Your task to perform on an android device: toggle location history Image 0: 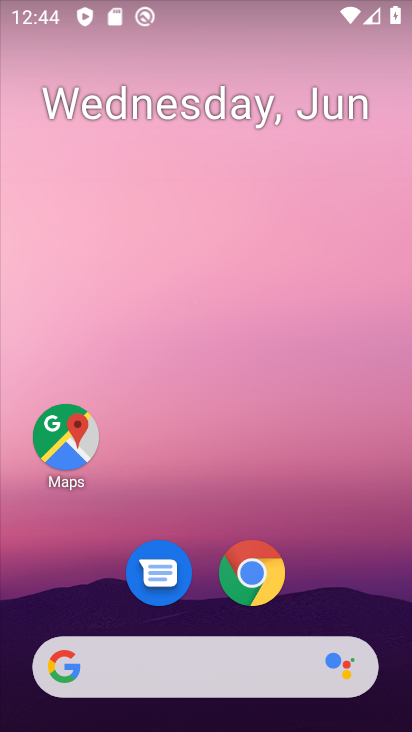
Step 0: drag from (325, 575) to (321, 228)
Your task to perform on an android device: toggle location history Image 1: 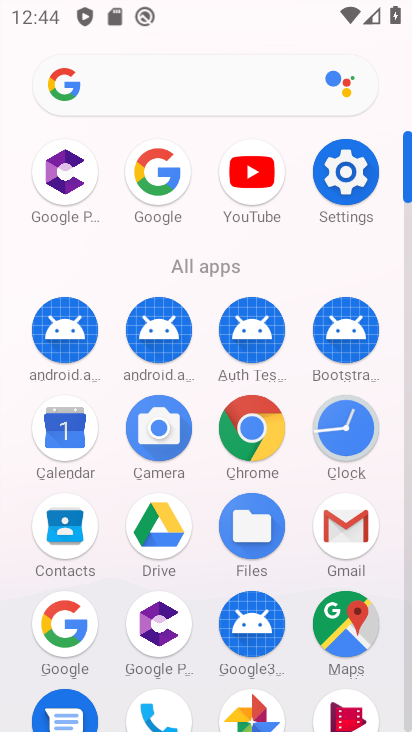
Step 1: click (332, 172)
Your task to perform on an android device: toggle location history Image 2: 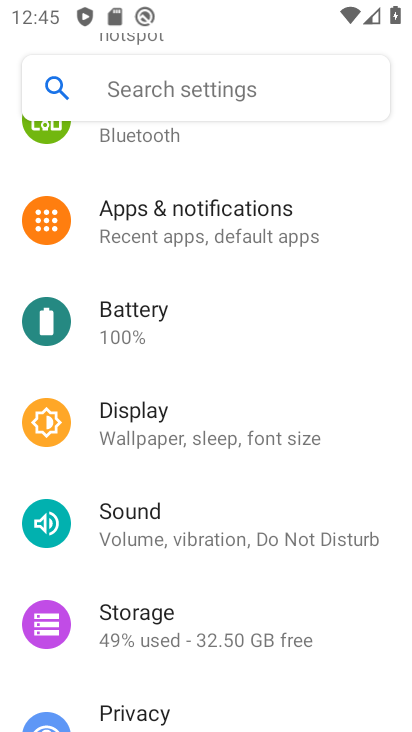
Step 2: drag from (235, 647) to (258, 361)
Your task to perform on an android device: toggle location history Image 3: 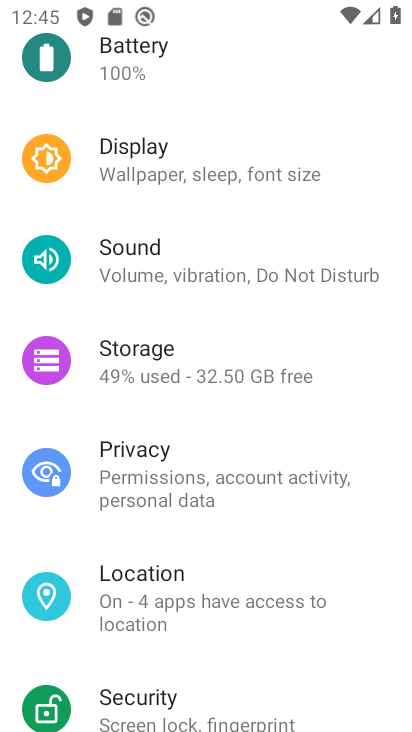
Step 3: drag from (205, 673) to (228, 378)
Your task to perform on an android device: toggle location history Image 4: 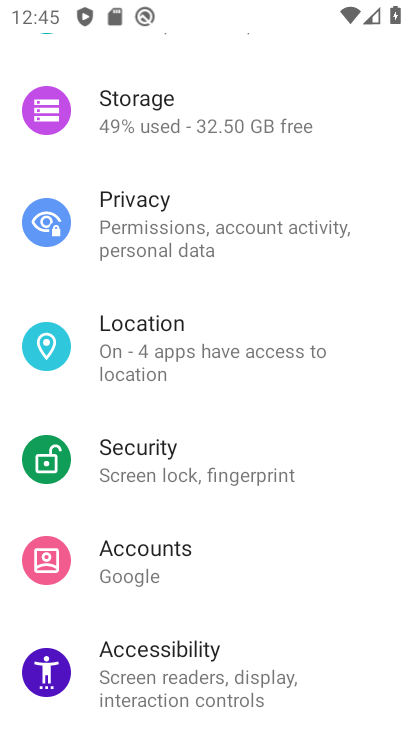
Step 4: drag from (178, 614) to (210, 466)
Your task to perform on an android device: toggle location history Image 5: 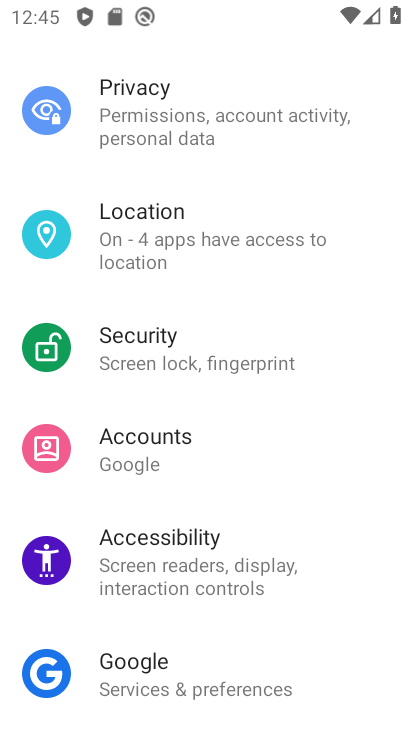
Step 5: drag from (210, 593) to (229, 461)
Your task to perform on an android device: toggle location history Image 6: 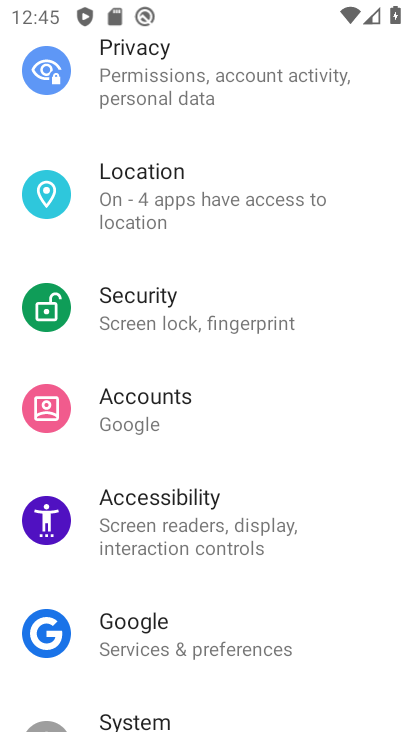
Step 6: click (211, 226)
Your task to perform on an android device: toggle location history Image 7: 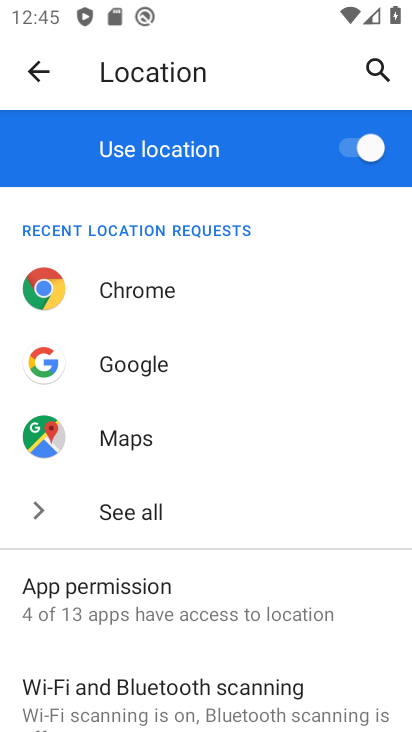
Step 7: drag from (246, 634) to (267, 397)
Your task to perform on an android device: toggle location history Image 8: 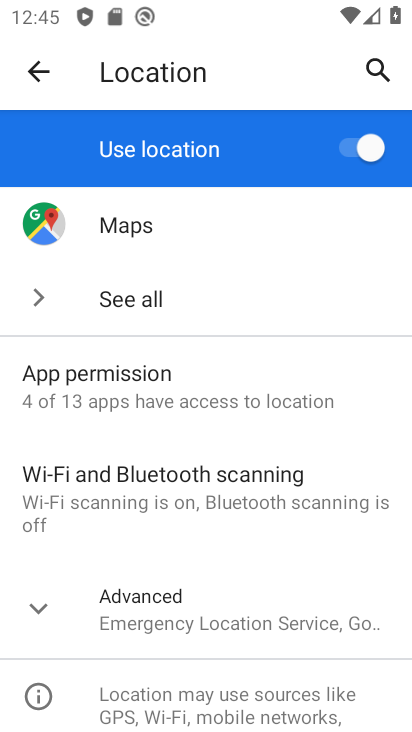
Step 8: click (230, 602)
Your task to perform on an android device: toggle location history Image 9: 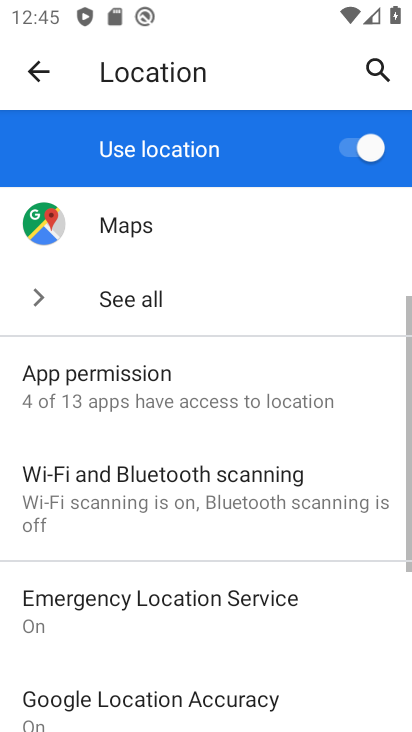
Step 9: drag from (238, 663) to (277, 415)
Your task to perform on an android device: toggle location history Image 10: 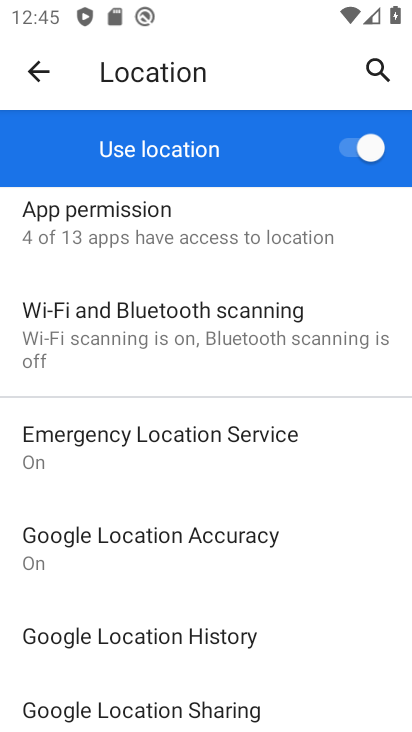
Step 10: drag from (263, 678) to (269, 468)
Your task to perform on an android device: toggle location history Image 11: 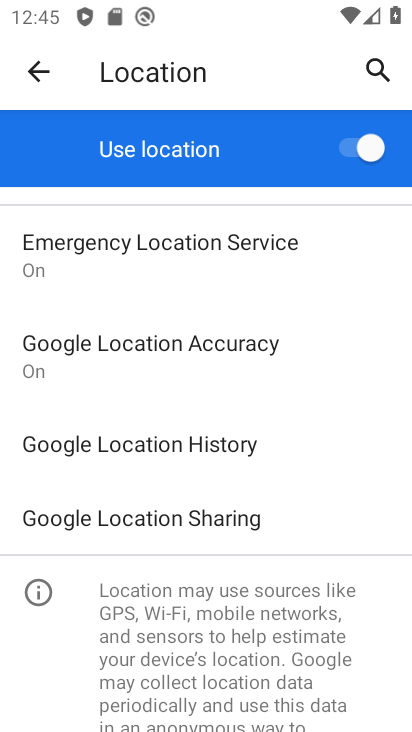
Step 11: click (120, 446)
Your task to perform on an android device: toggle location history Image 12: 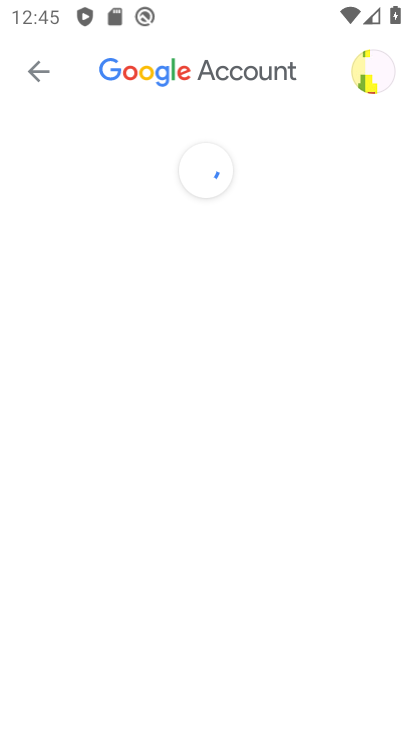
Step 12: drag from (96, 636) to (146, 360)
Your task to perform on an android device: toggle location history Image 13: 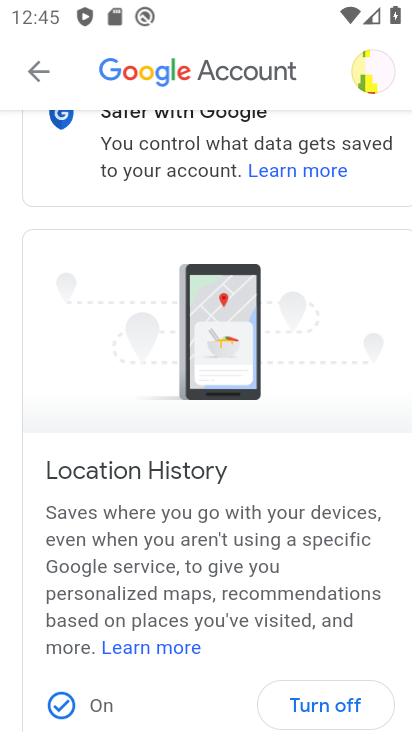
Step 13: drag from (227, 685) to (208, 468)
Your task to perform on an android device: toggle location history Image 14: 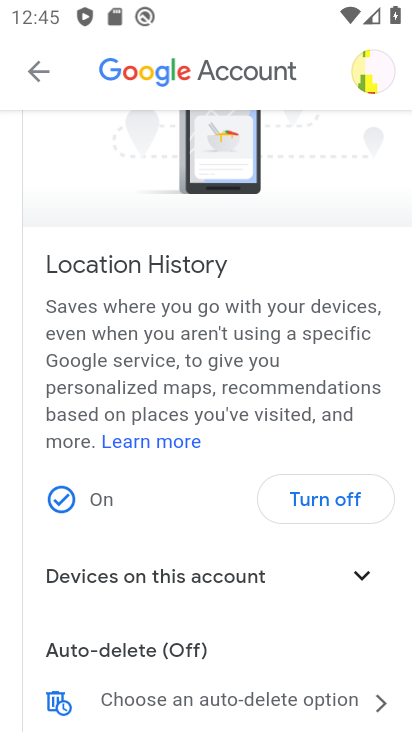
Step 14: click (314, 496)
Your task to perform on an android device: toggle location history Image 15: 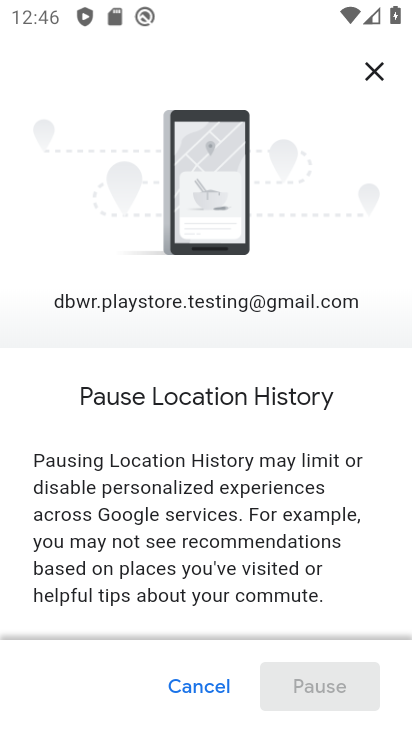
Step 15: drag from (294, 606) to (271, 328)
Your task to perform on an android device: toggle location history Image 16: 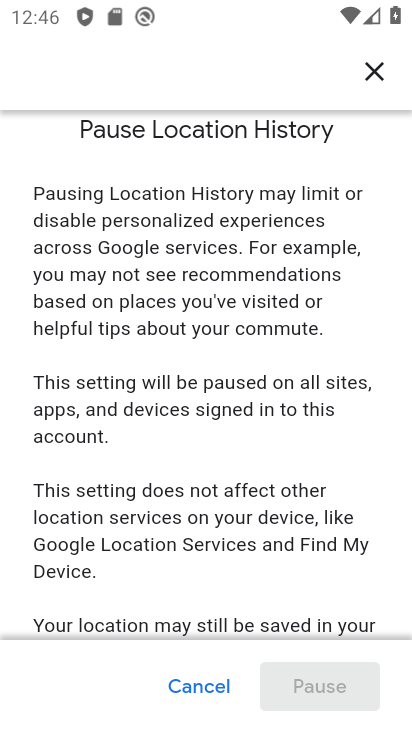
Step 16: drag from (266, 585) to (222, 306)
Your task to perform on an android device: toggle location history Image 17: 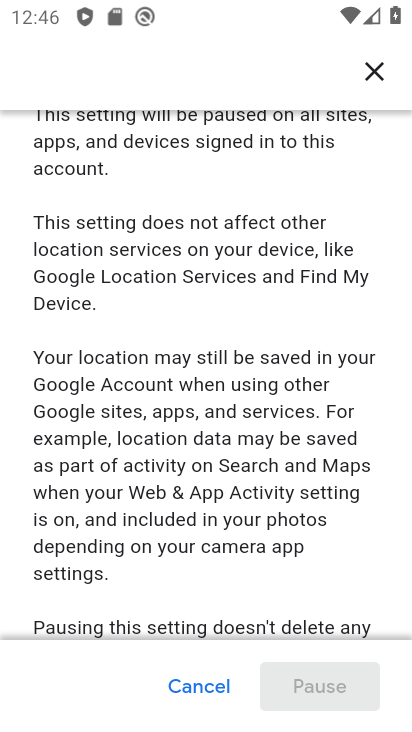
Step 17: drag from (264, 565) to (222, 288)
Your task to perform on an android device: toggle location history Image 18: 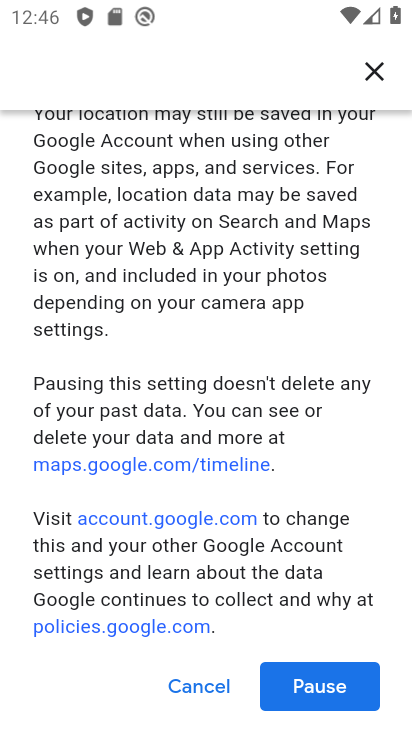
Step 18: click (322, 679)
Your task to perform on an android device: toggle location history Image 19: 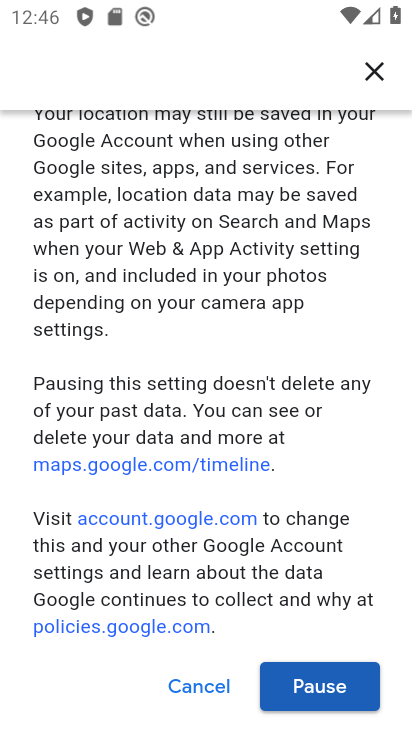
Step 19: click (322, 695)
Your task to perform on an android device: toggle location history Image 20: 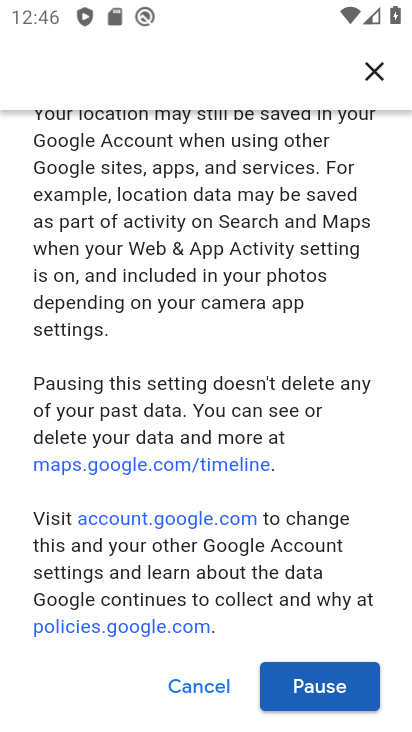
Step 20: click (315, 702)
Your task to perform on an android device: toggle location history Image 21: 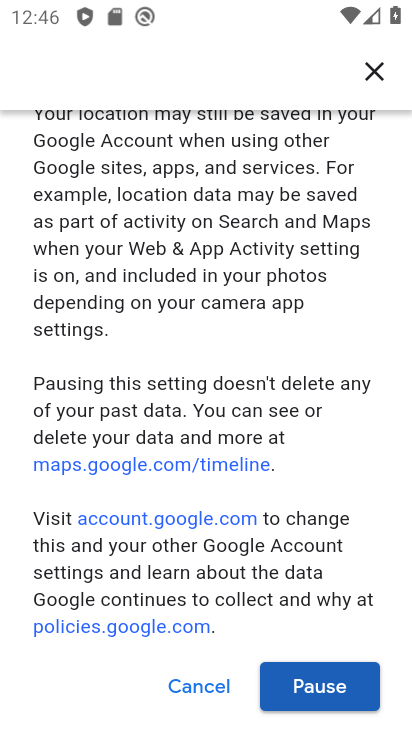
Step 21: click (315, 703)
Your task to perform on an android device: toggle location history Image 22: 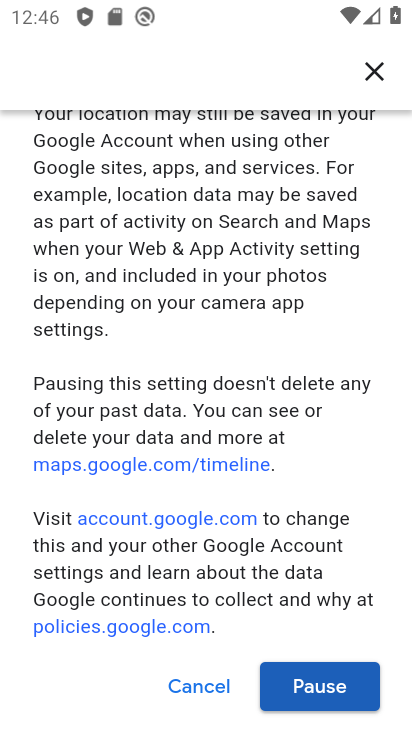
Step 22: click (315, 688)
Your task to perform on an android device: toggle location history Image 23: 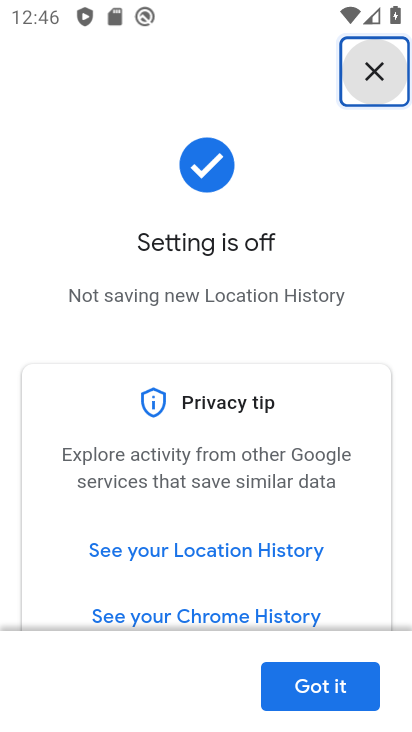
Step 23: task complete